Your task to perform on an android device: turn on airplane mode Image 0: 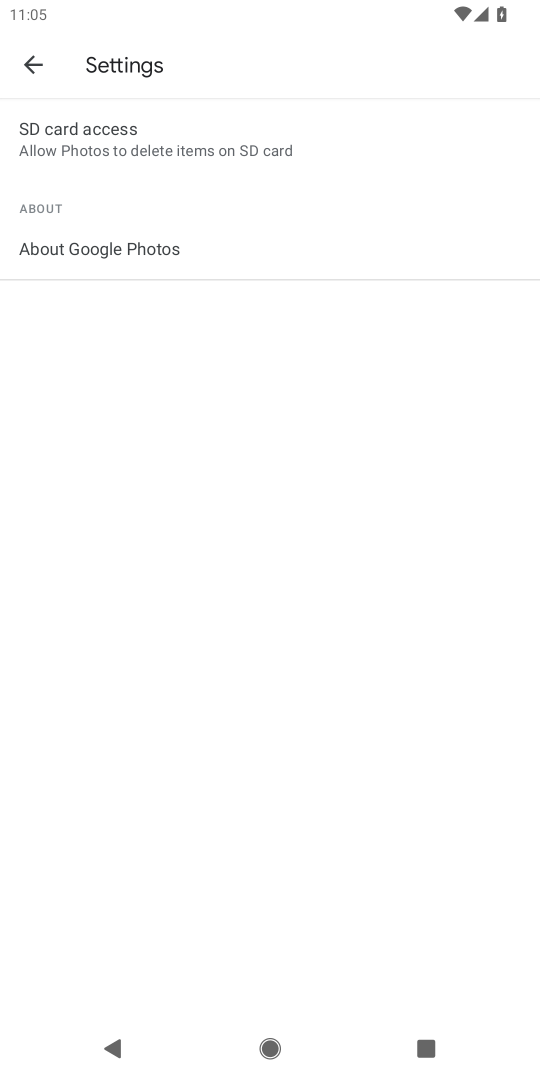
Step 0: press home button
Your task to perform on an android device: turn on airplane mode Image 1: 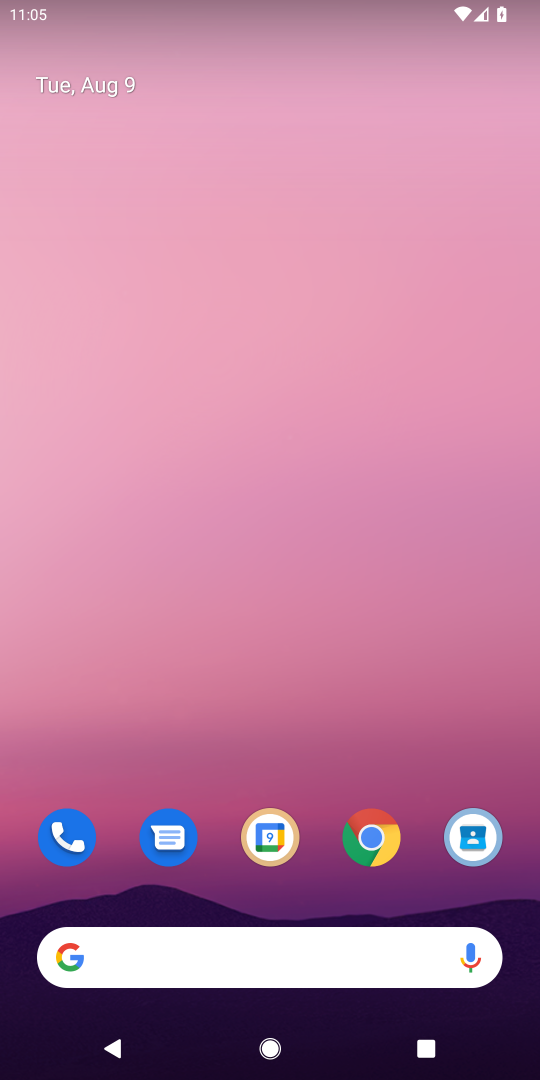
Step 1: drag from (309, 916) to (313, 167)
Your task to perform on an android device: turn on airplane mode Image 2: 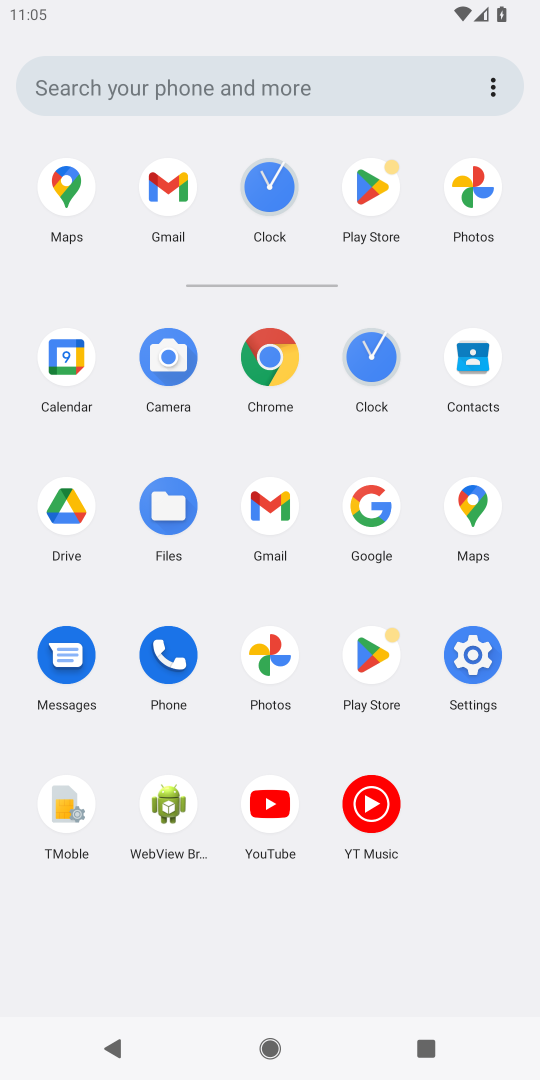
Step 2: click (475, 668)
Your task to perform on an android device: turn on airplane mode Image 3: 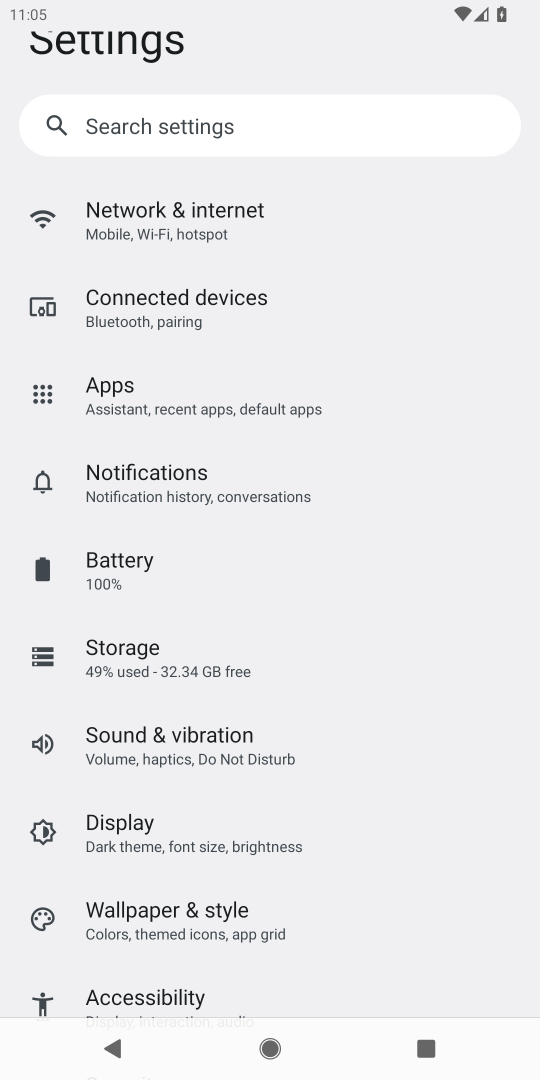
Step 3: click (124, 216)
Your task to perform on an android device: turn on airplane mode Image 4: 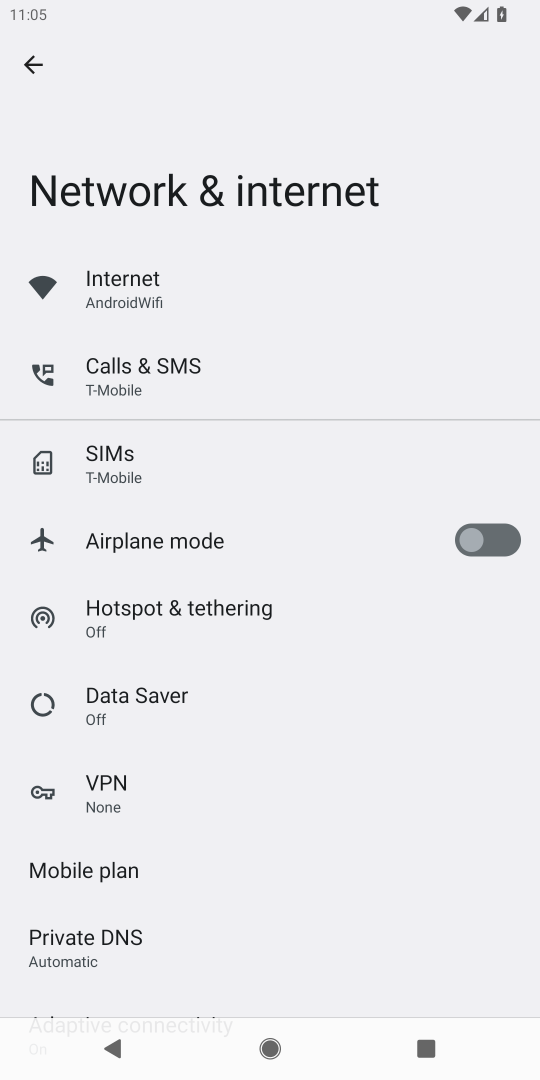
Step 4: click (496, 541)
Your task to perform on an android device: turn on airplane mode Image 5: 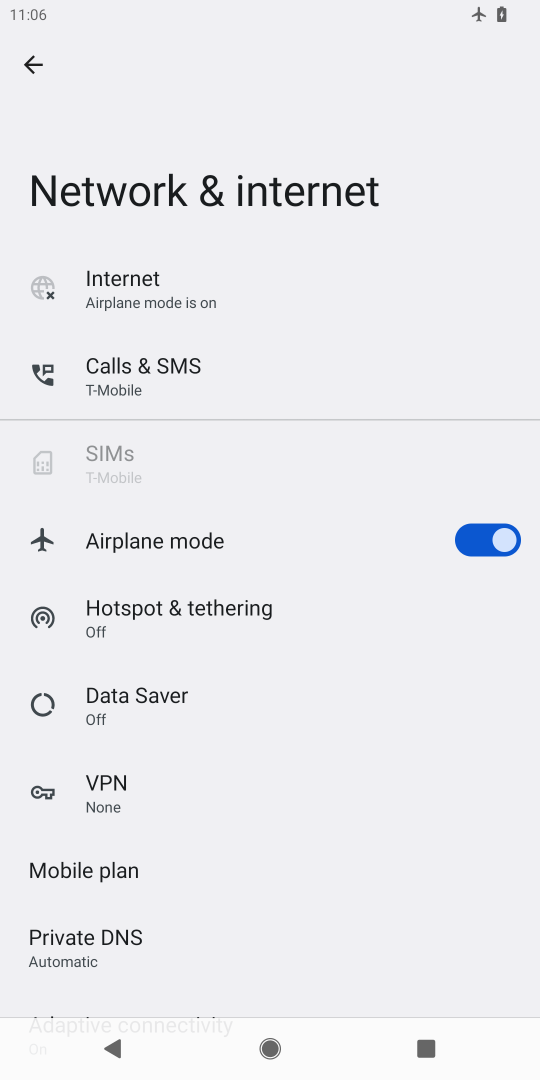
Step 5: task complete